Your task to perform on an android device: Open Youtube and go to the subscriptions tab Image 0: 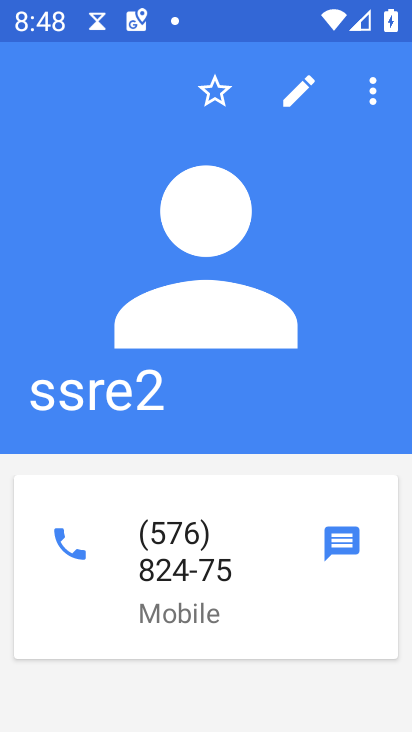
Step 0: press home button
Your task to perform on an android device: Open Youtube and go to the subscriptions tab Image 1: 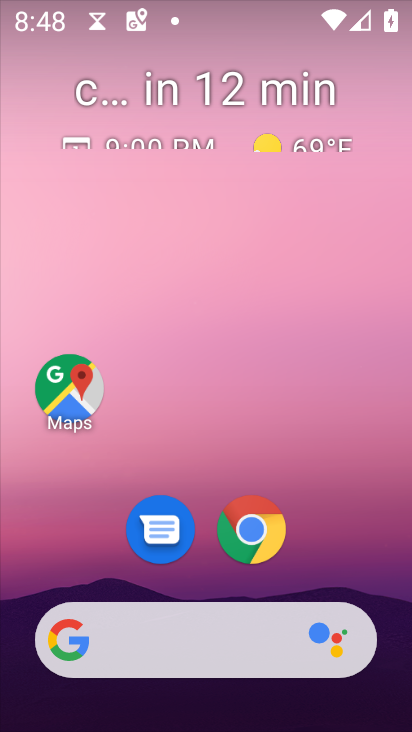
Step 1: drag from (342, 552) to (268, 52)
Your task to perform on an android device: Open Youtube and go to the subscriptions tab Image 2: 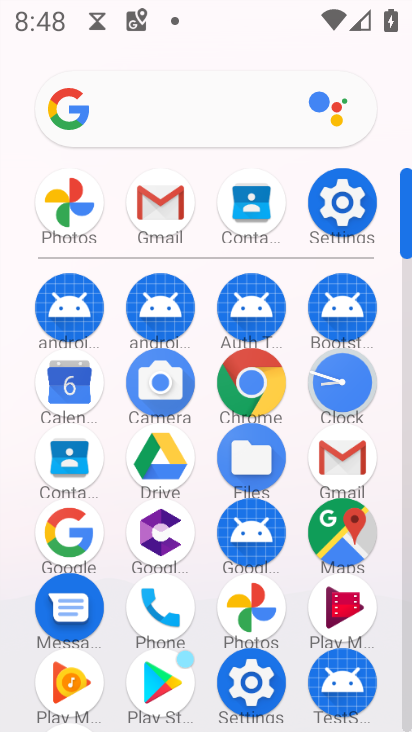
Step 2: click (404, 393)
Your task to perform on an android device: Open Youtube and go to the subscriptions tab Image 3: 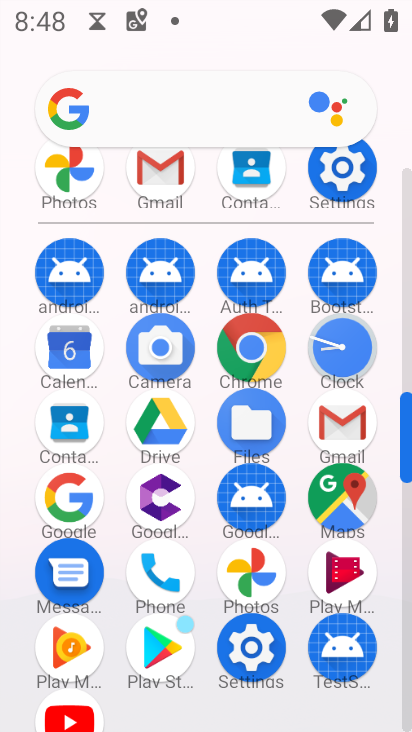
Step 3: click (404, 542)
Your task to perform on an android device: Open Youtube and go to the subscriptions tab Image 4: 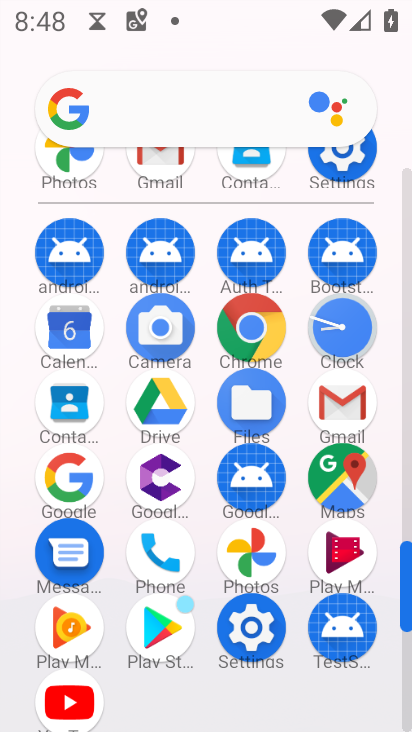
Step 4: click (69, 693)
Your task to perform on an android device: Open Youtube and go to the subscriptions tab Image 5: 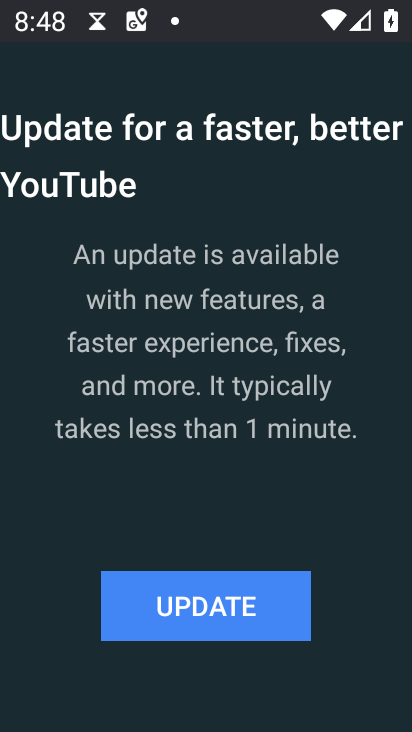
Step 5: click (207, 596)
Your task to perform on an android device: Open Youtube and go to the subscriptions tab Image 6: 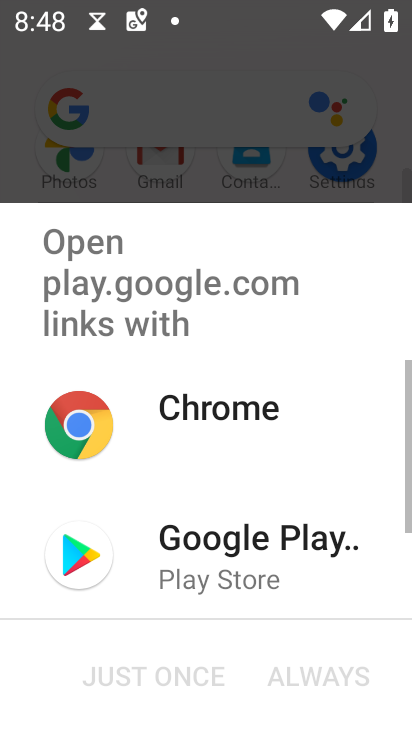
Step 6: click (223, 528)
Your task to perform on an android device: Open Youtube and go to the subscriptions tab Image 7: 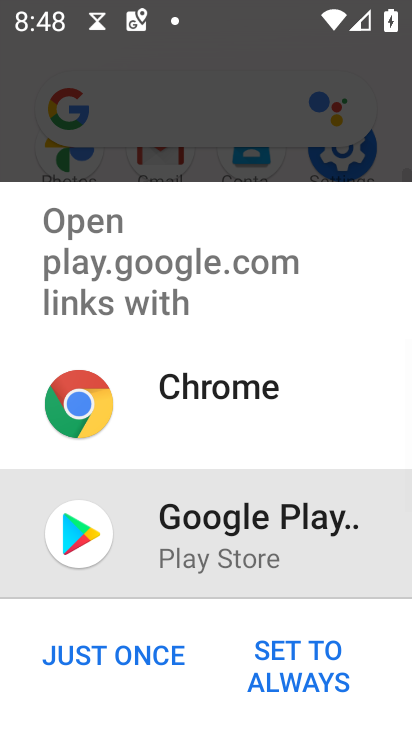
Step 7: click (282, 646)
Your task to perform on an android device: Open Youtube and go to the subscriptions tab Image 8: 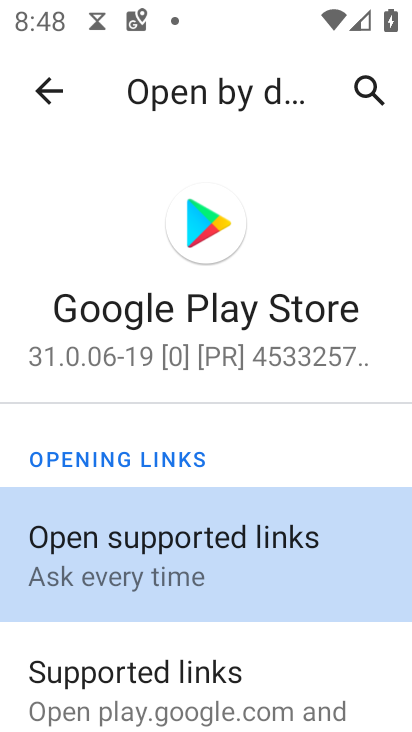
Step 8: press back button
Your task to perform on an android device: Open Youtube and go to the subscriptions tab Image 9: 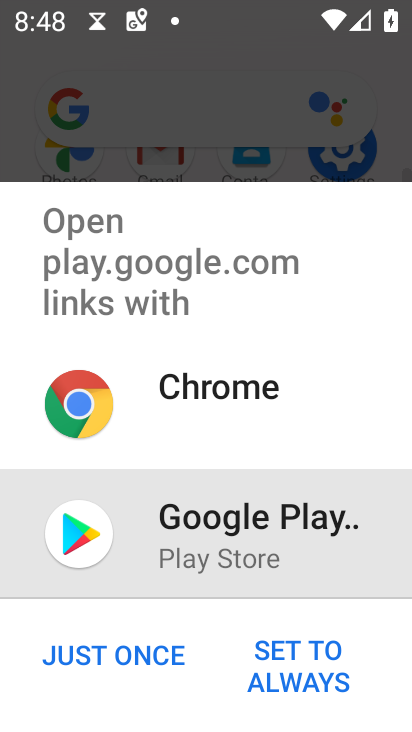
Step 9: click (145, 654)
Your task to perform on an android device: Open Youtube and go to the subscriptions tab Image 10: 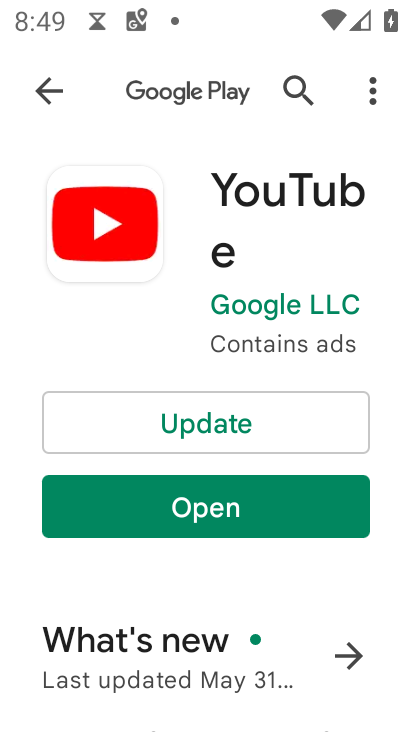
Step 10: click (240, 414)
Your task to perform on an android device: Open Youtube and go to the subscriptions tab Image 11: 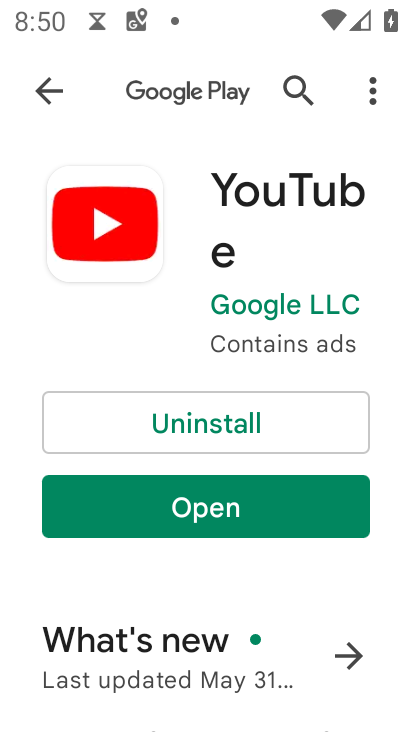
Step 11: click (202, 507)
Your task to perform on an android device: Open Youtube and go to the subscriptions tab Image 12: 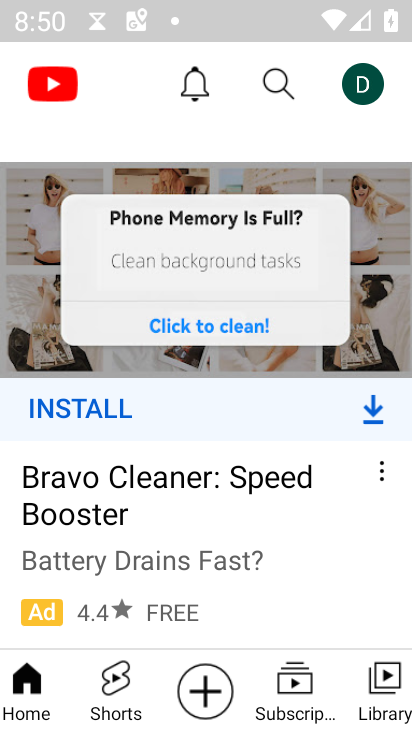
Step 12: click (293, 680)
Your task to perform on an android device: Open Youtube and go to the subscriptions tab Image 13: 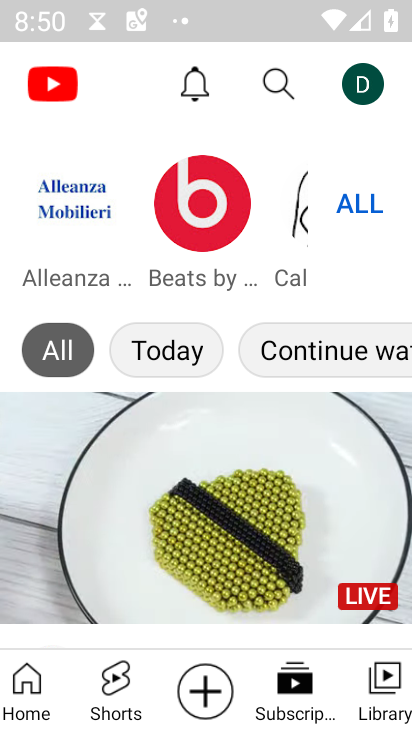
Step 13: task complete